Your task to perform on an android device: Open location settings Image 0: 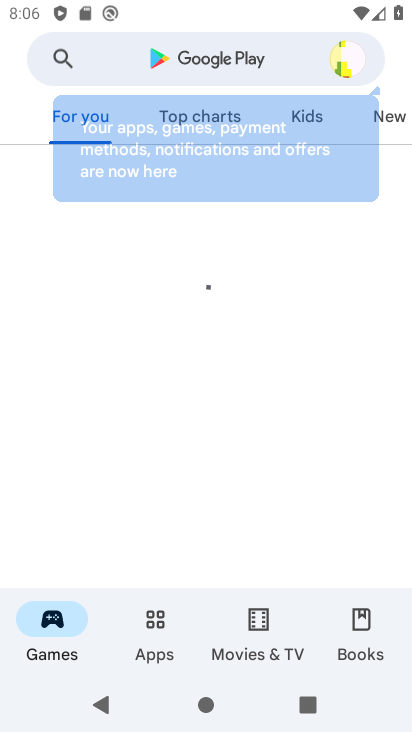
Step 0: press home button
Your task to perform on an android device: Open location settings Image 1: 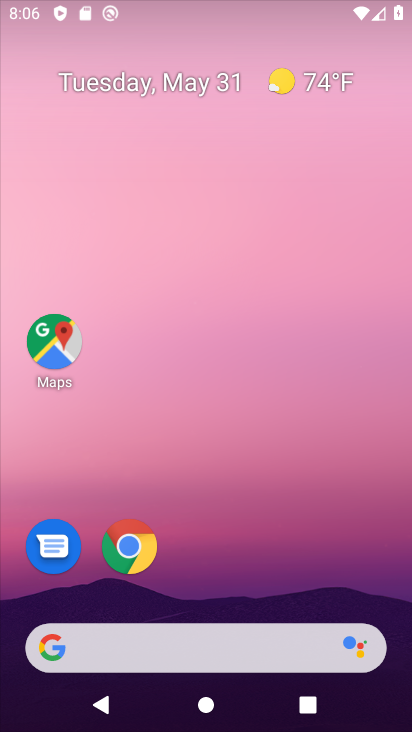
Step 1: drag from (222, 571) to (330, 27)
Your task to perform on an android device: Open location settings Image 2: 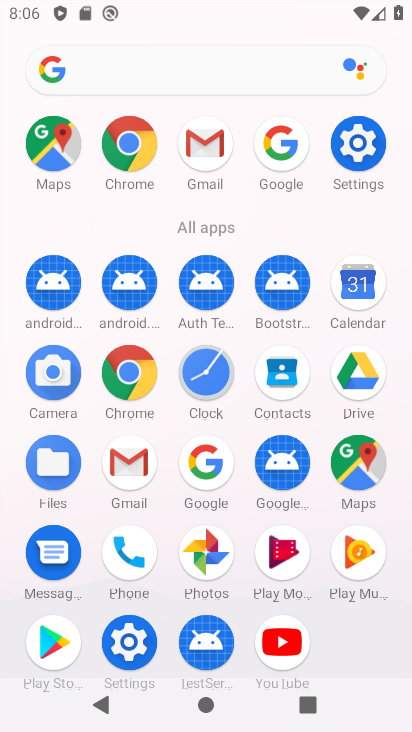
Step 2: click (356, 149)
Your task to perform on an android device: Open location settings Image 3: 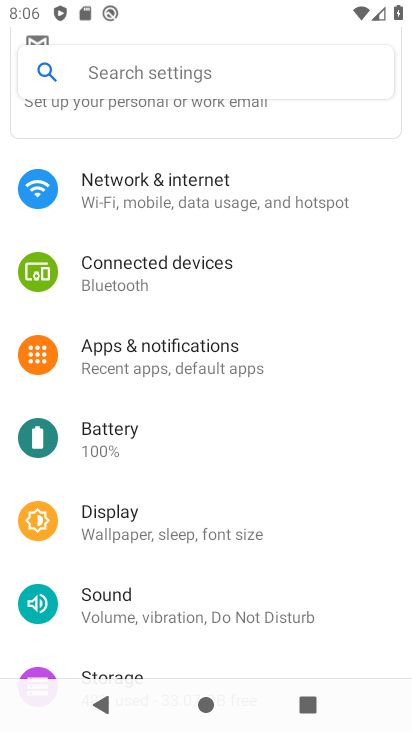
Step 3: drag from (178, 593) to (272, 39)
Your task to perform on an android device: Open location settings Image 4: 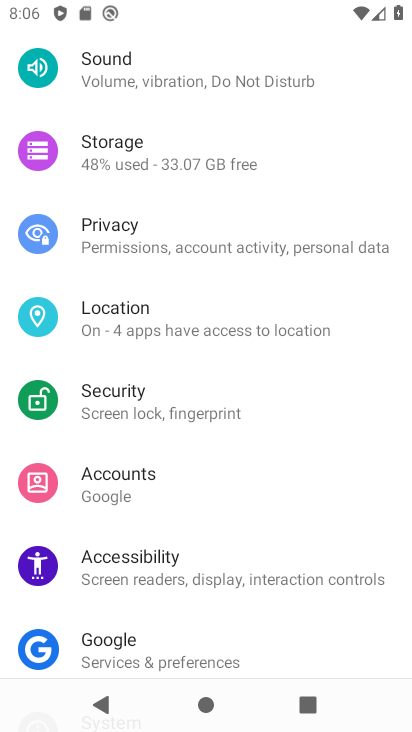
Step 4: click (127, 304)
Your task to perform on an android device: Open location settings Image 5: 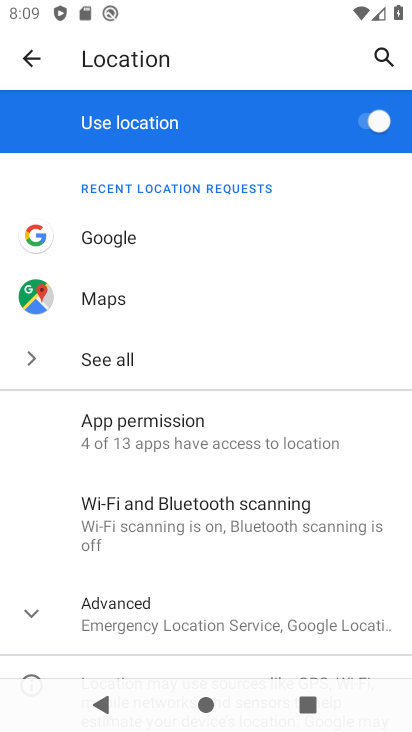
Step 5: task complete